Your task to perform on an android device: empty trash in google photos Image 0: 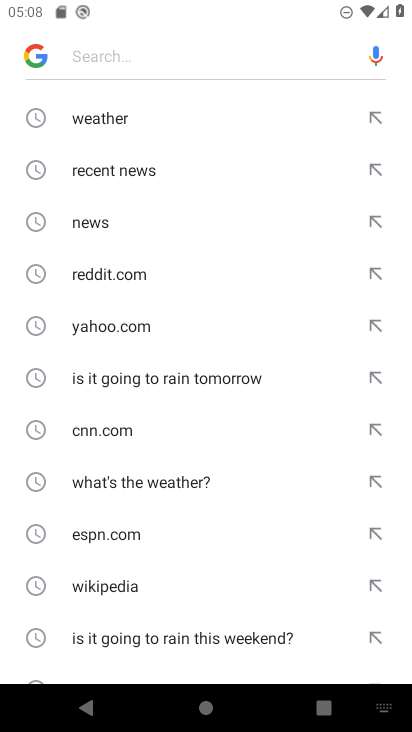
Step 0: press home button
Your task to perform on an android device: empty trash in google photos Image 1: 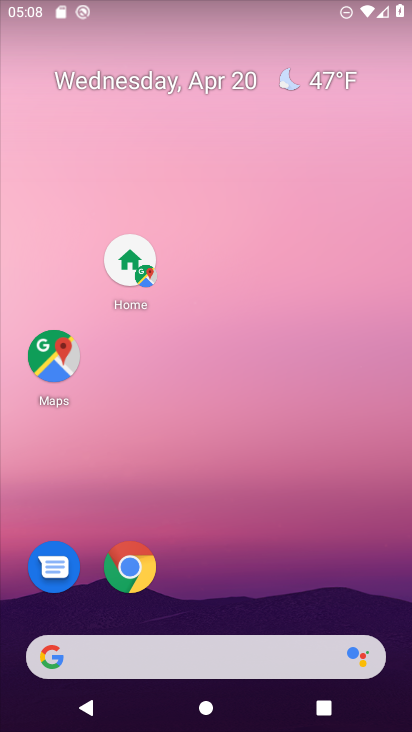
Step 1: drag from (173, 615) to (349, 132)
Your task to perform on an android device: empty trash in google photos Image 2: 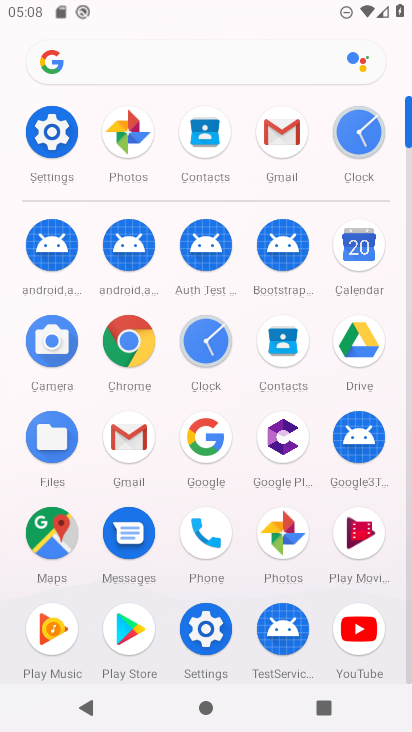
Step 2: click (132, 124)
Your task to perform on an android device: empty trash in google photos Image 3: 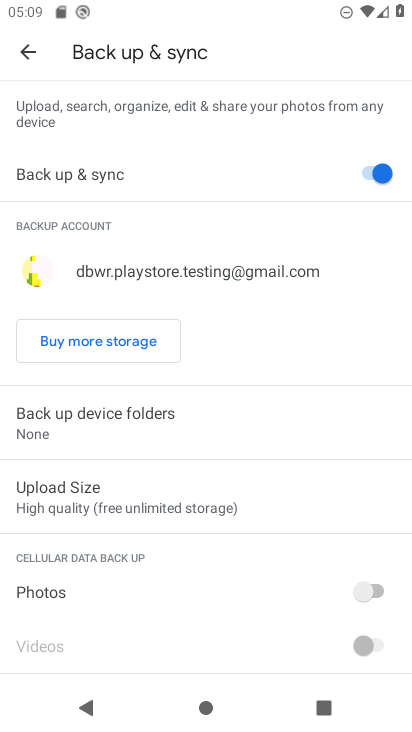
Step 3: press home button
Your task to perform on an android device: empty trash in google photos Image 4: 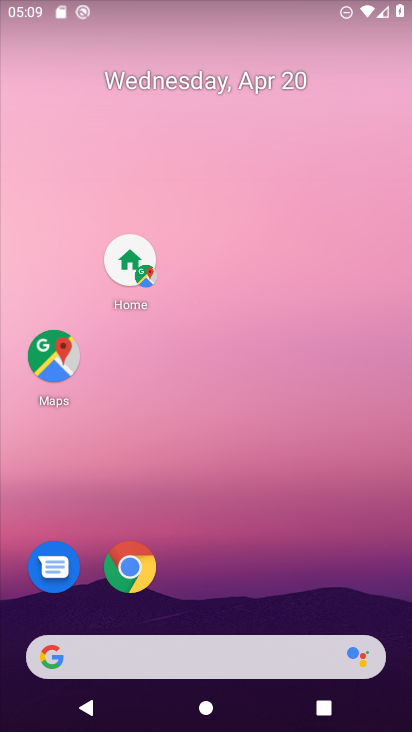
Step 4: drag from (210, 597) to (250, 74)
Your task to perform on an android device: empty trash in google photos Image 5: 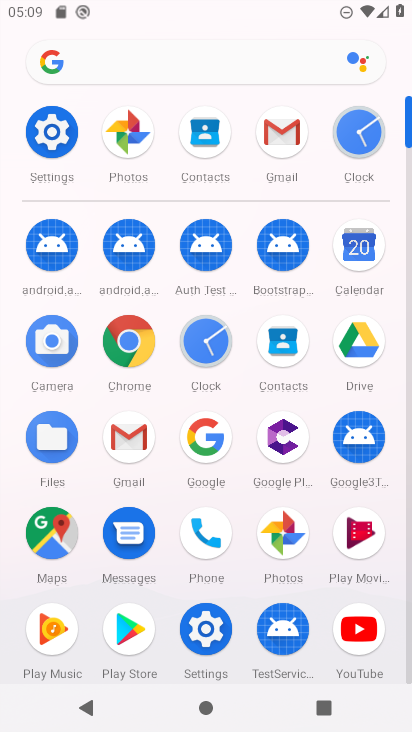
Step 5: click (133, 132)
Your task to perform on an android device: empty trash in google photos Image 6: 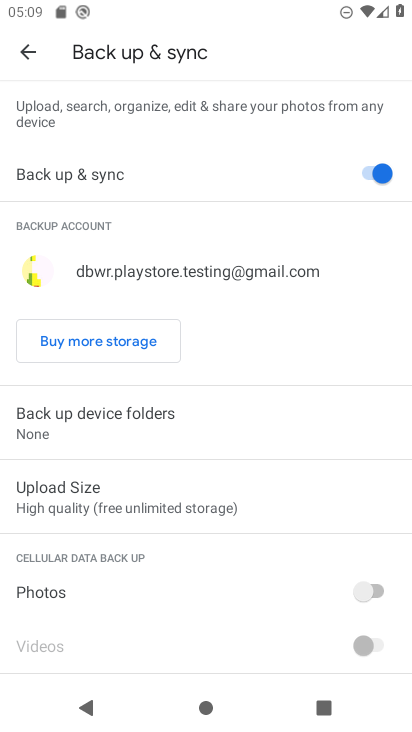
Step 6: click (23, 72)
Your task to perform on an android device: empty trash in google photos Image 7: 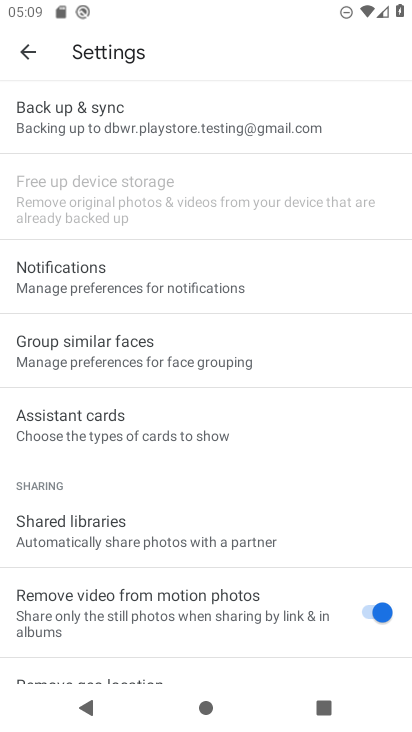
Step 7: click (34, 57)
Your task to perform on an android device: empty trash in google photos Image 8: 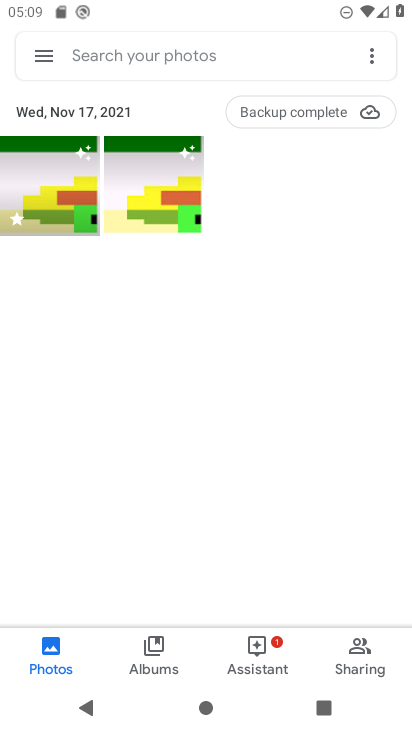
Step 8: click (34, 57)
Your task to perform on an android device: empty trash in google photos Image 9: 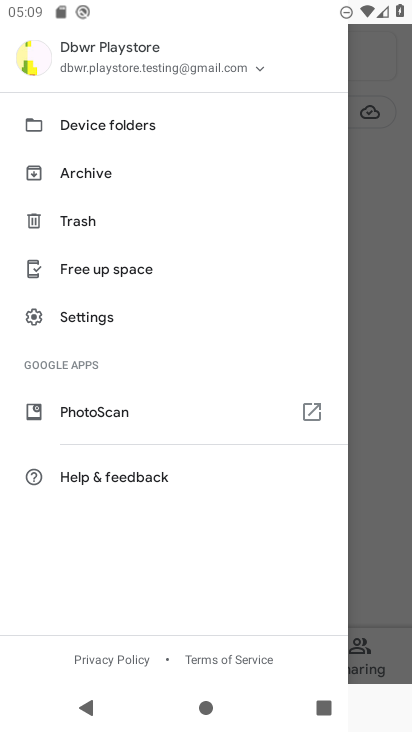
Step 9: click (154, 232)
Your task to perform on an android device: empty trash in google photos Image 10: 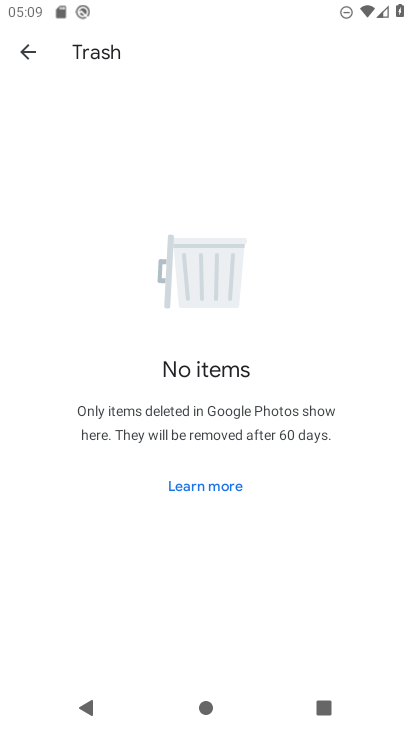
Step 10: task complete